Your task to perform on an android device: turn off data saver in the chrome app Image 0: 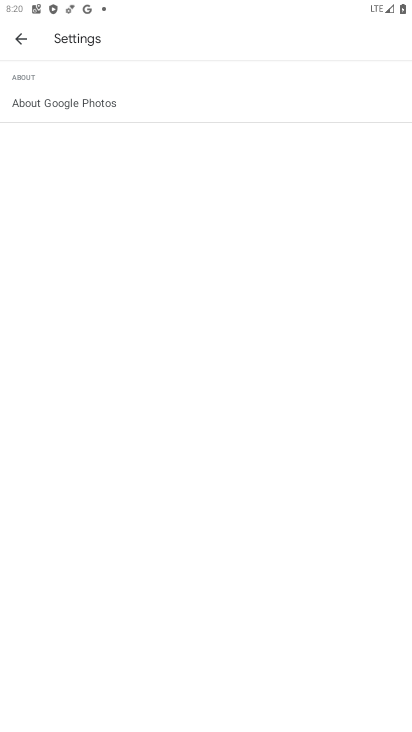
Step 0: press home button
Your task to perform on an android device: turn off data saver in the chrome app Image 1: 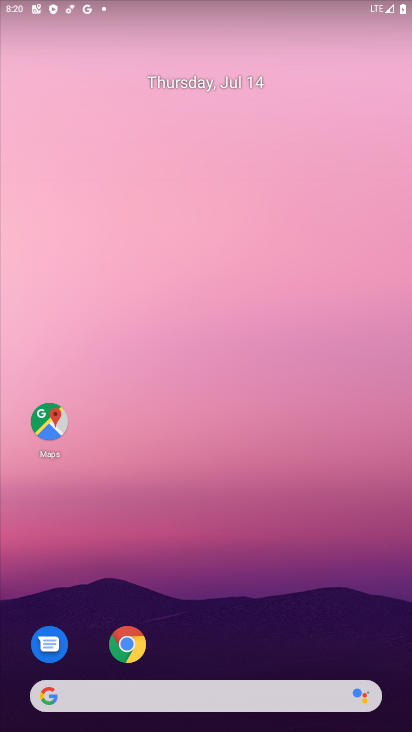
Step 1: click (137, 649)
Your task to perform on an android device: turn off data saver in the chrome app Image 2: 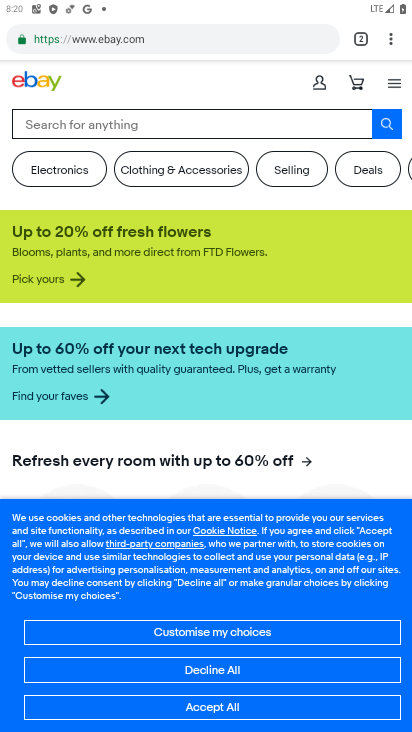
Step 2: drag from (403, 37) to (292, 512)
Your task to perform on an android device: turn off data saver in the chrome app Image 3: 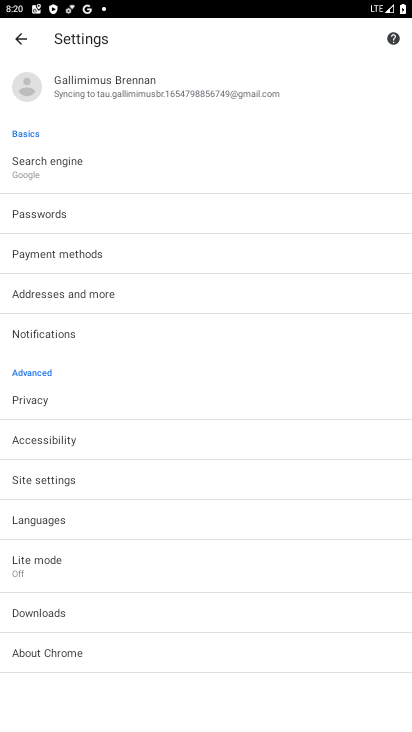
Step 3: click (64, 571)
Your task to perform on an android device: turn off data saver in the chrome app Image 4: 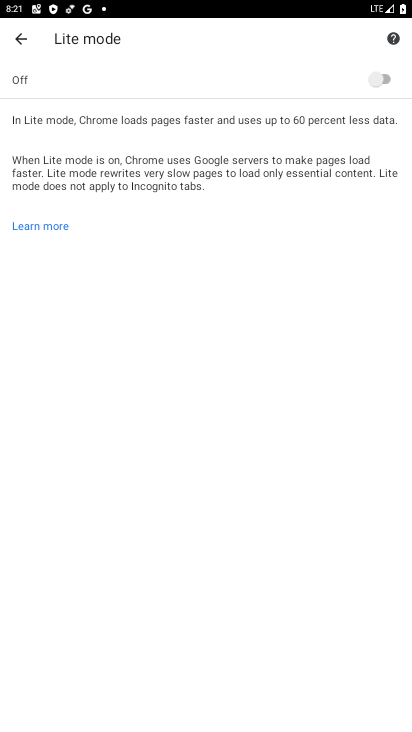
Step 4: task complete